Your task to perform on an android device: Go to internet settings Image 0: 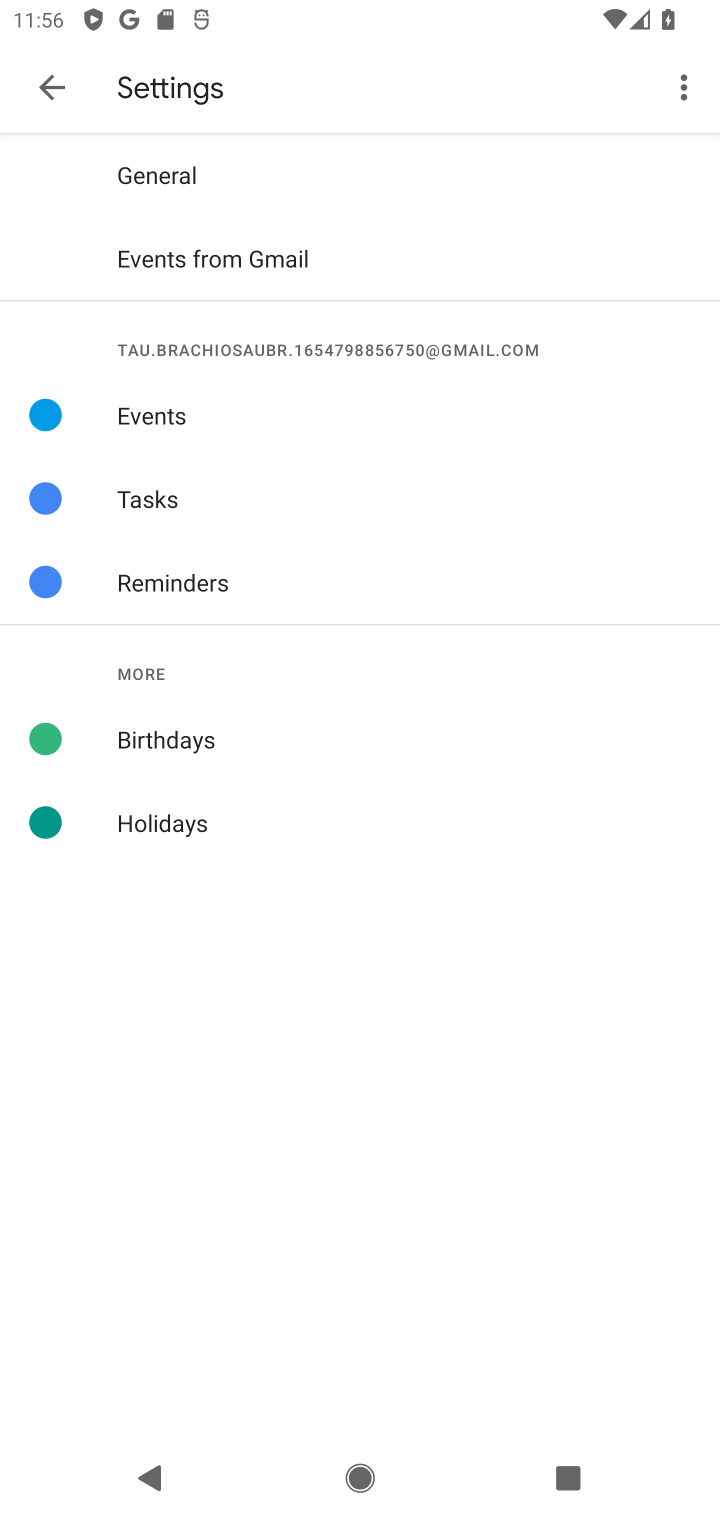
Step 0: press home button
Your task to perform on an android device: Go to internet settings Image 1: 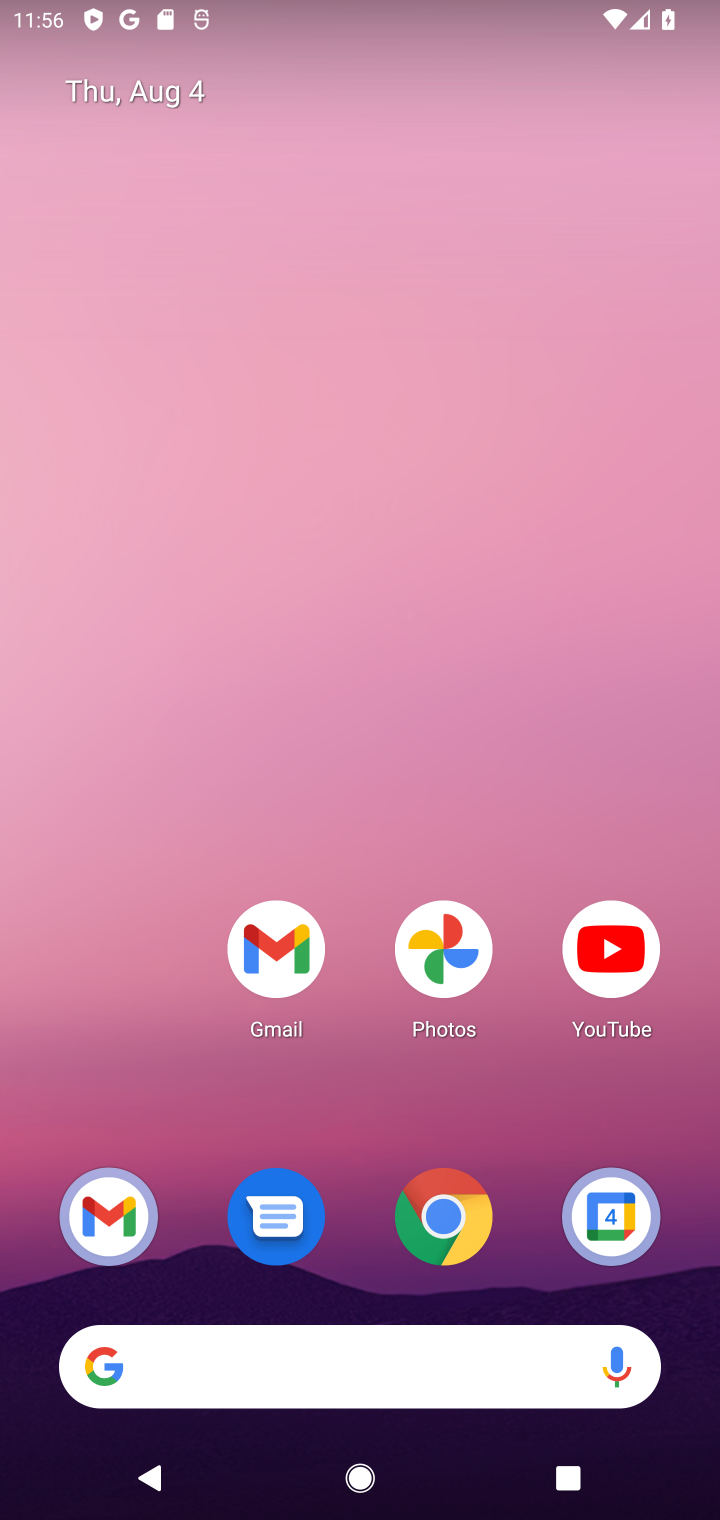
Step 1: drag from (376, 743) to (396, 20)
Your task to perform on an android device: Go to internet settings Image 2: 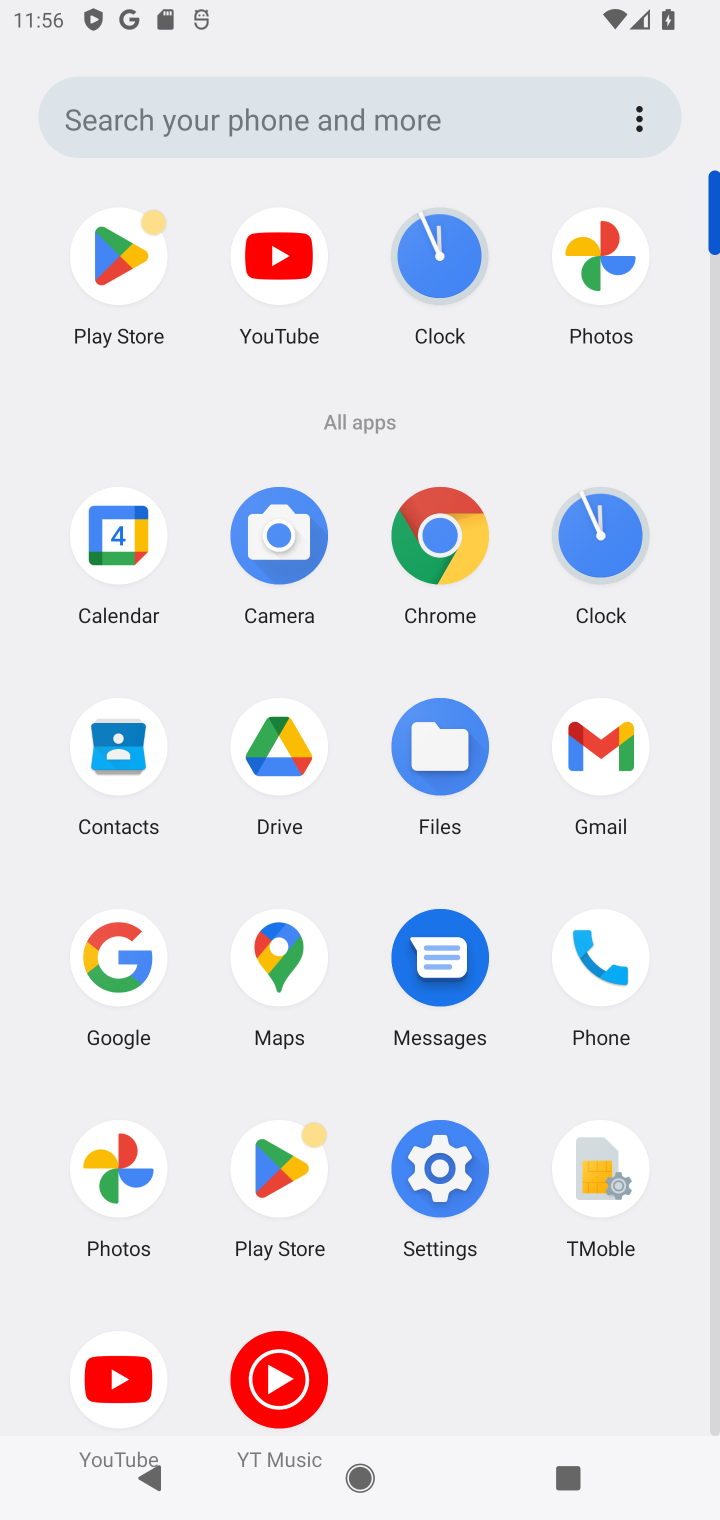
Step 2: click (417, 1183)
Your task to perform on an android device: Go to internet settings Image 3: 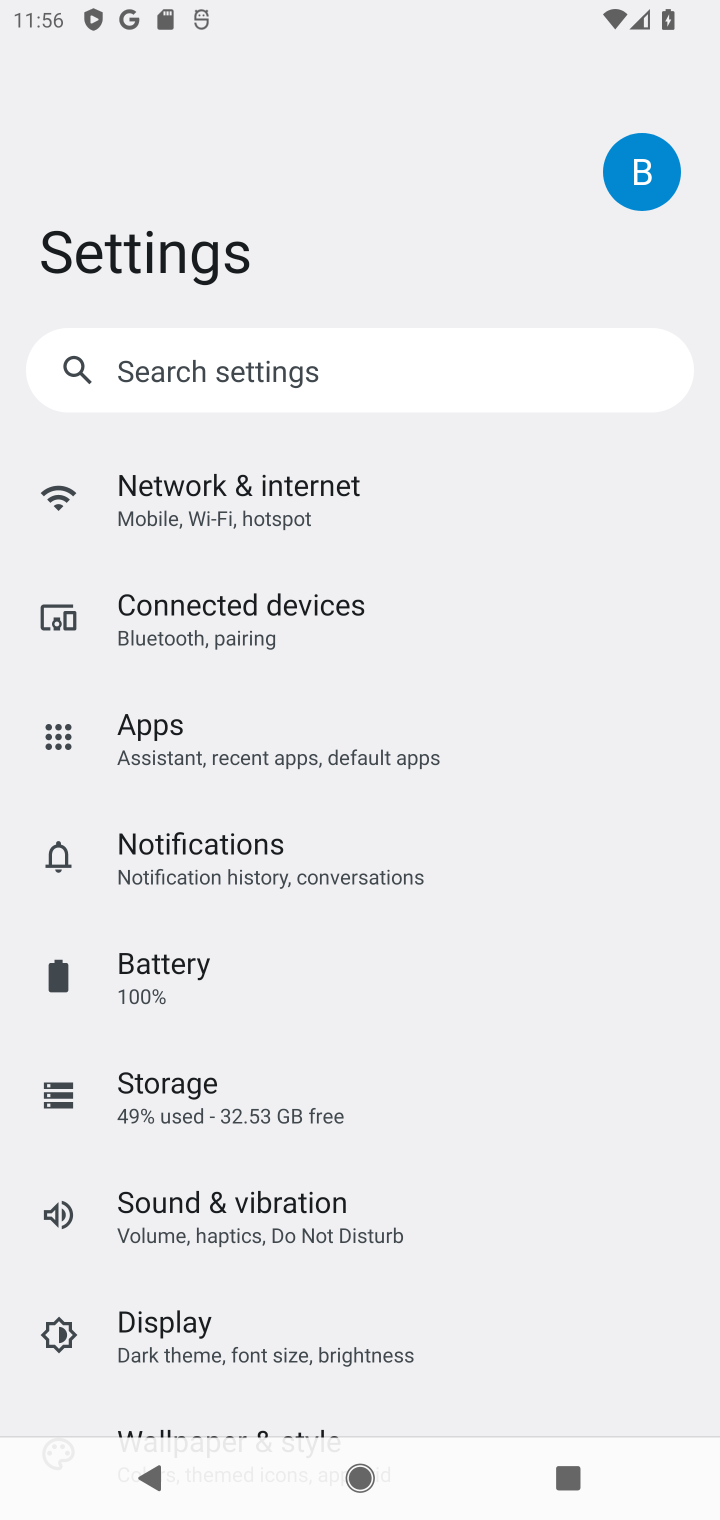
Step 3: task complete